Your task to perform on an android device: Find coffee shops on Maps Image 0: 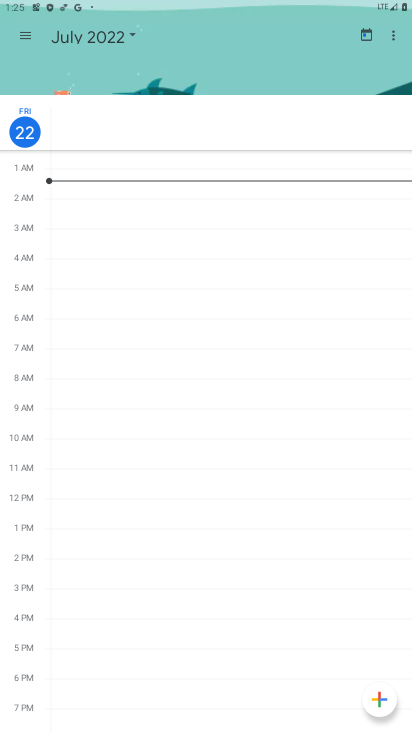
Step 0: press home button
Your task to perform on an android device: Find coffee shops on Maps Image 1: 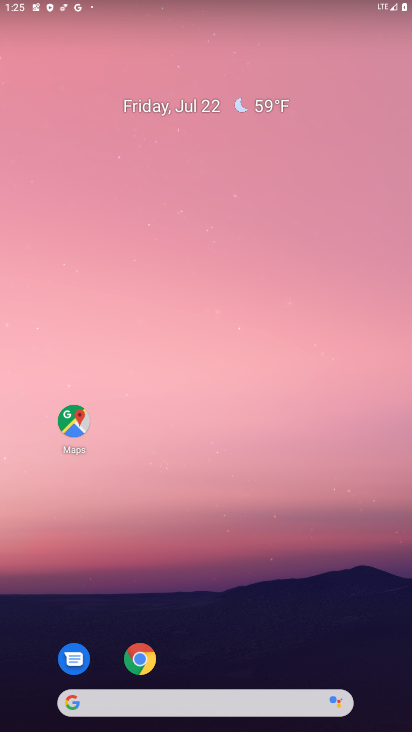
Step 1: drag from (168, 553) to (174, 0)
Your task to perform on an android device: Find coffee shops on Maps Image 2: 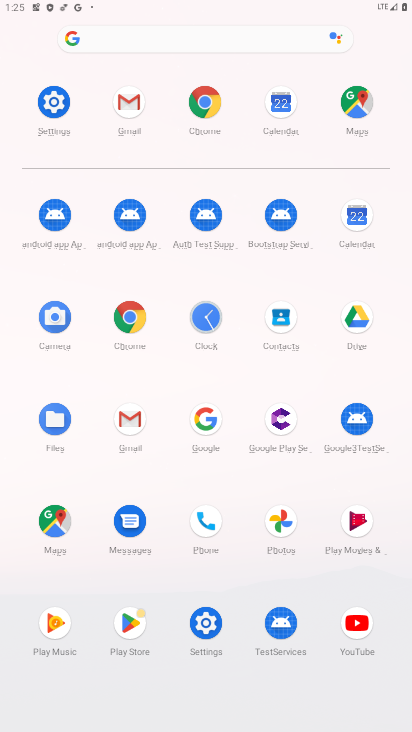
Step 2: click (352, 113)
Your task to perform on an android device: Find coffee shops on Maps Image 3: 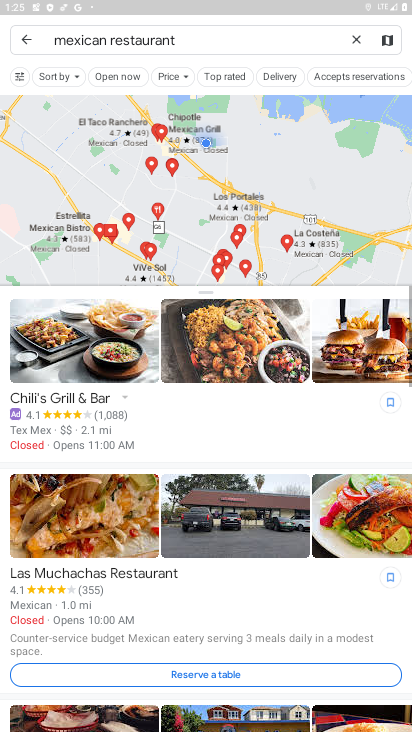
Step 3: click (18, 48)
Your task to perform on an android device: Find coffee shops on Maps Image 4: 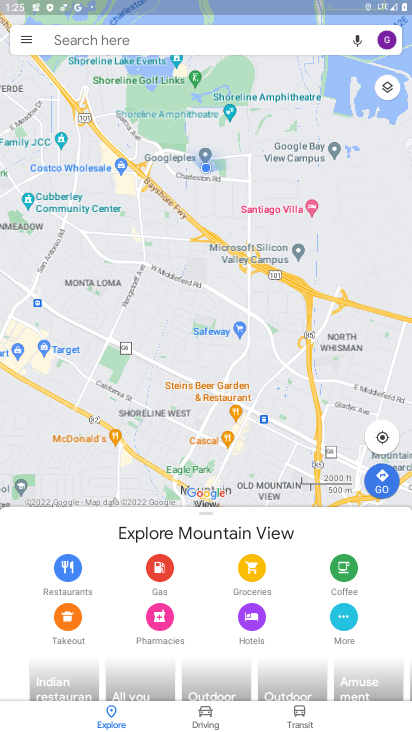
Step 4: click (226, 35)
Your task to perform on an android device: Find coffee shops on Maps Image 5: 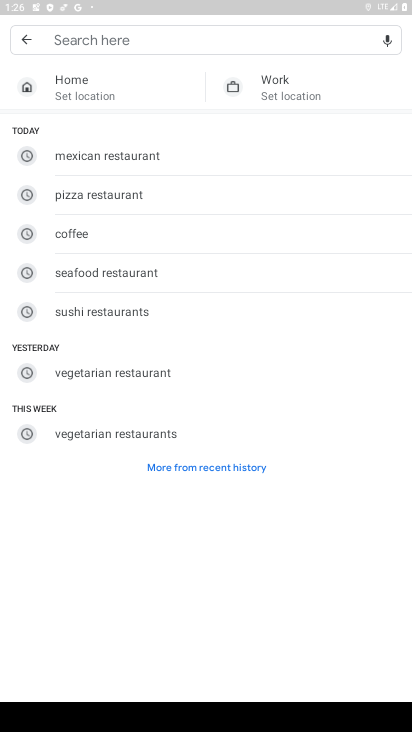
Step 5: type " coffee shops"
Your task to perform on an android device: Find coffee shops on Maps Image 6: 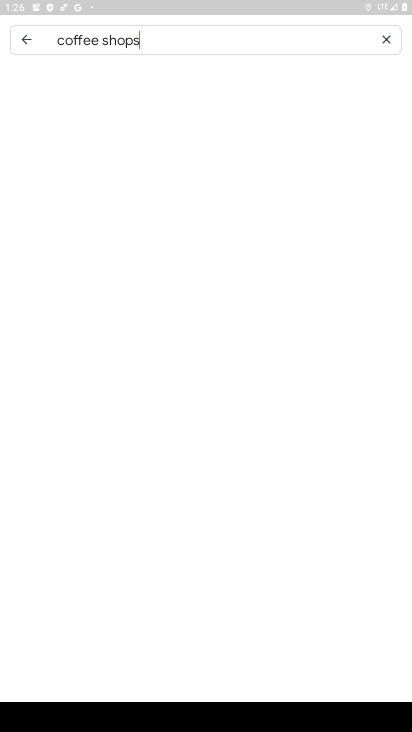
Step 6: press enter
Your task to perform on an android device: Find coffee shops on Maps Image 7: 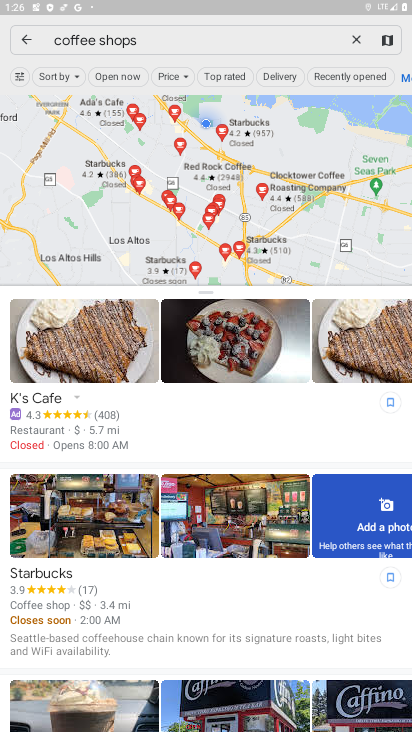
Step 7: task complete